Your task to perform on an android device: Open network settings Image 0: 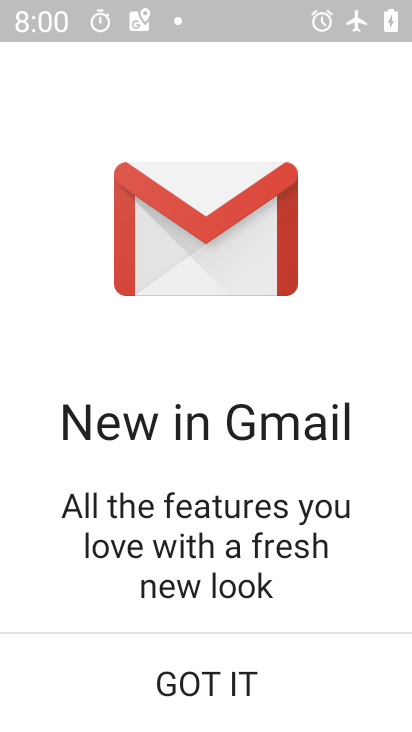
Step 0: press home button
Your task to perform on an android device: Open network settings Image 1: 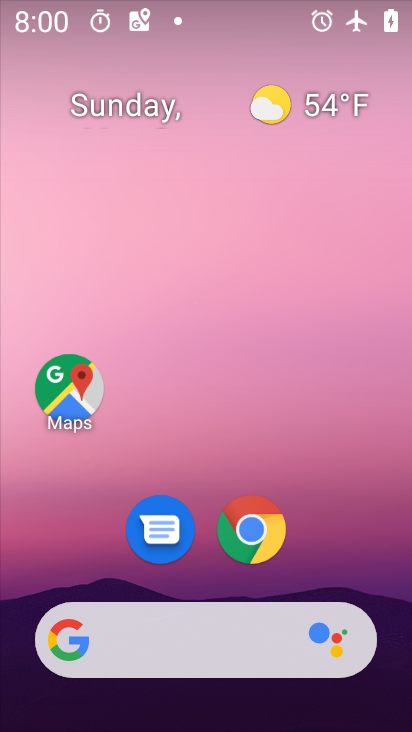
Step 1: drag from (217, 575) to (284, 52)
Your task to perform on an android device: Open network settings Image 2: 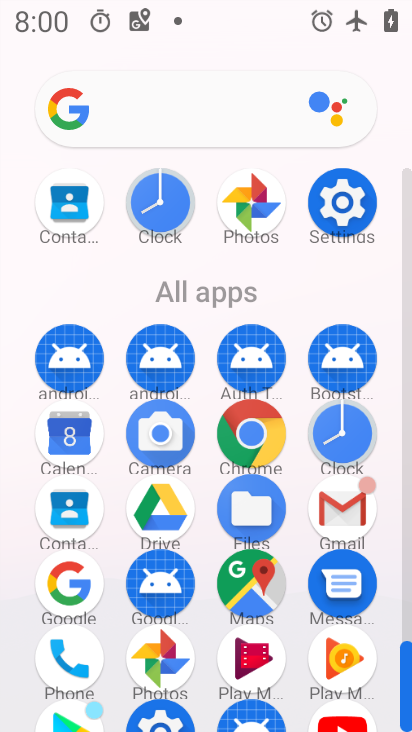
Step 2: click (351, 232)
Your task to perform on an android device: Open network settings Image 3: 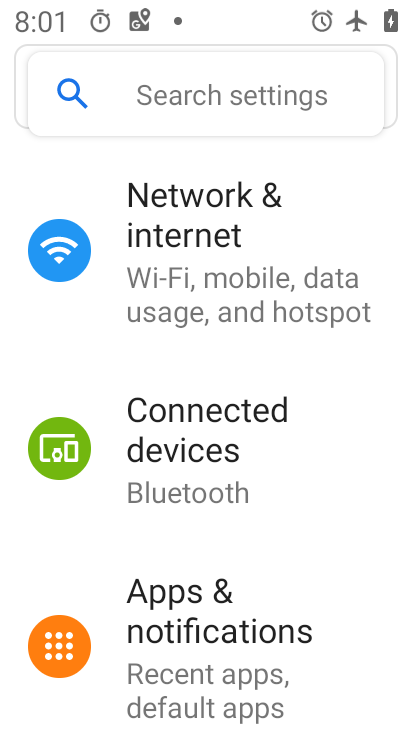
Step 3: click (205, 221)
Your task to perform on an android device: Open network settings Image 4: 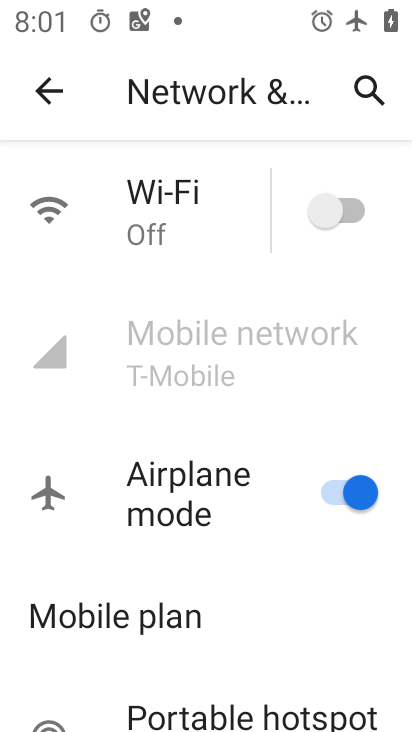
Step 4: task complete